Your task to perform on an android device: create a new album in the google photos Image 0: 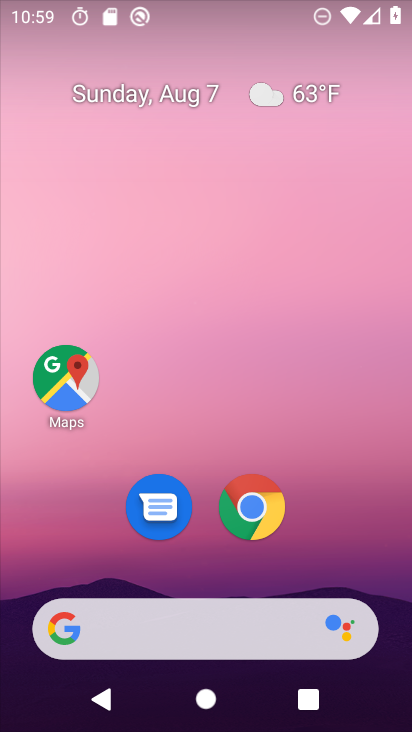
Step 0: drag from (318, 380) to (305, 34)
Your task to perform on an android device: create a new album in the google photos Image 1: 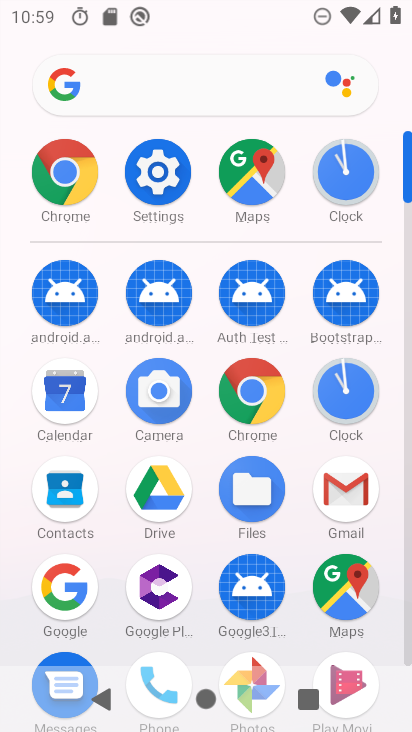
Step 1: drag from (292, 559) to (301, 229)
Your task to perform on an android device: create a new album in the google photos Image 2: 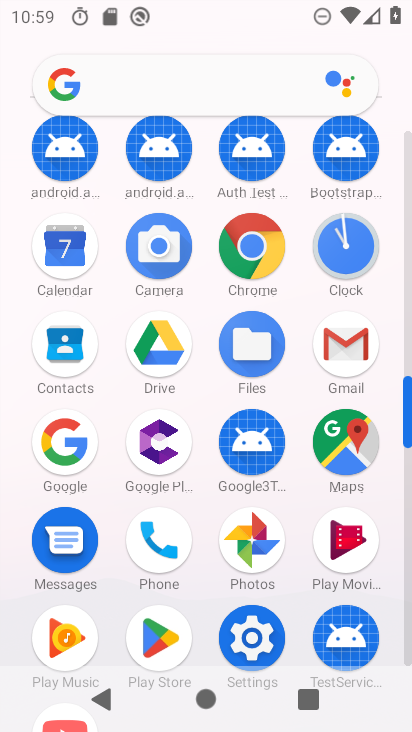
Step 2: click (258, 546)
Your task to perform on an android device: create a new album in the google photos Image 3: 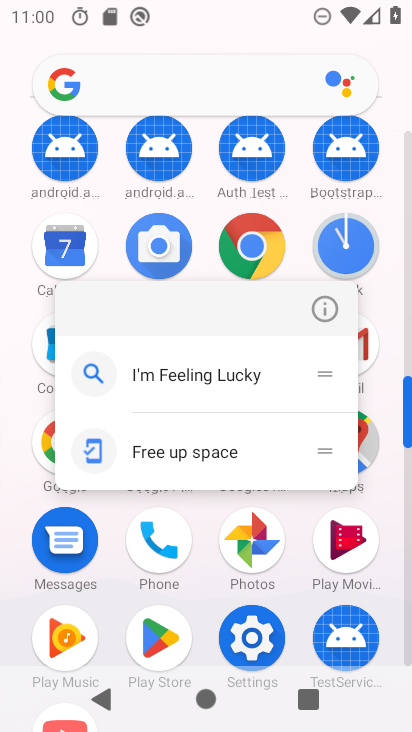
Step 3: click (253, 546)
Your task to perform on an android device: create a new album in the google photos Image 4: 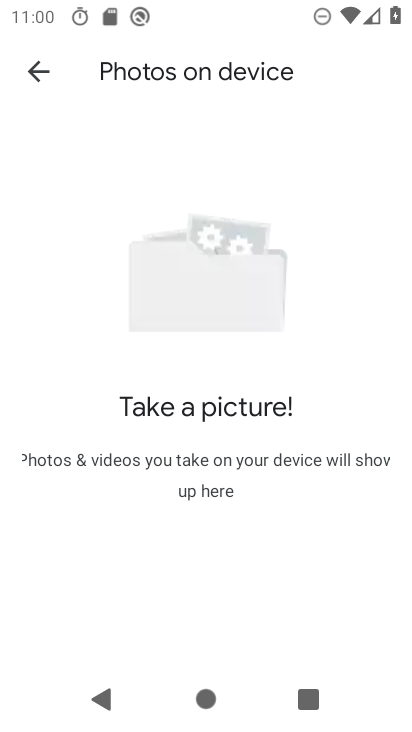
Step 4: click (25, 70)
Your task to perform on an android device: create a new album in the google photos Image 5: 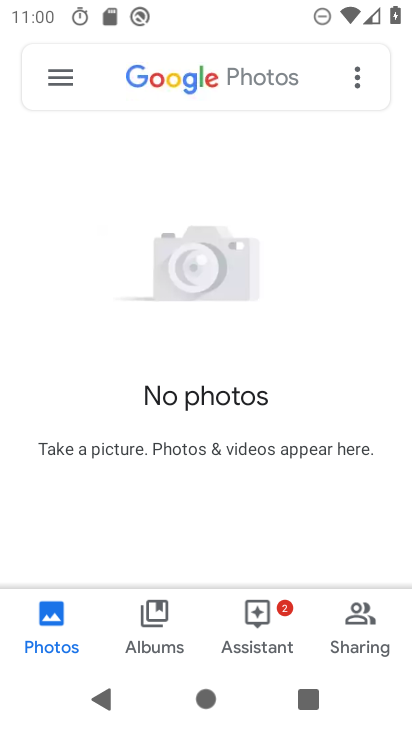
Step 5: click (174, 618)
Your task to perform on an android device: create a new album in the google photos Image 6: 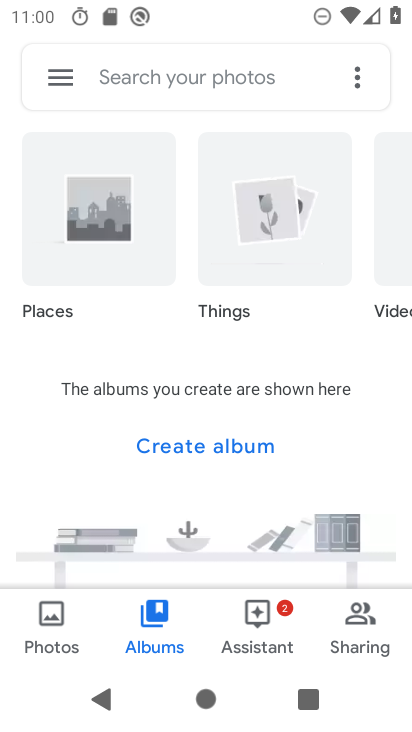
Step 6: click (234, 444)
Your task to perform on an android device: create a new album in the google photos Image 7: 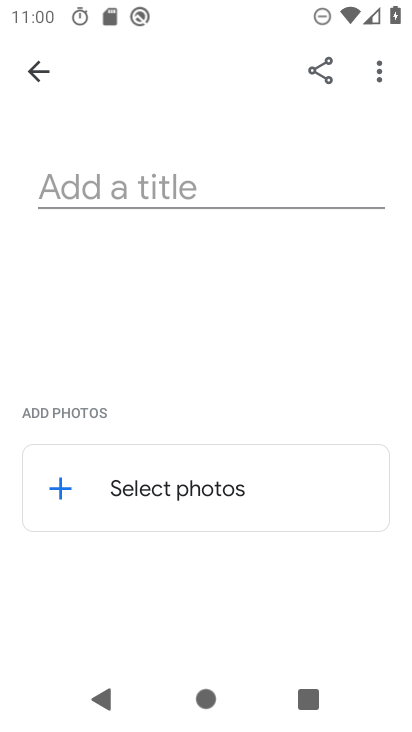
Step 7: click (294, 191)
Your task to perform on an android device: create a new album in the google photos Image 8: 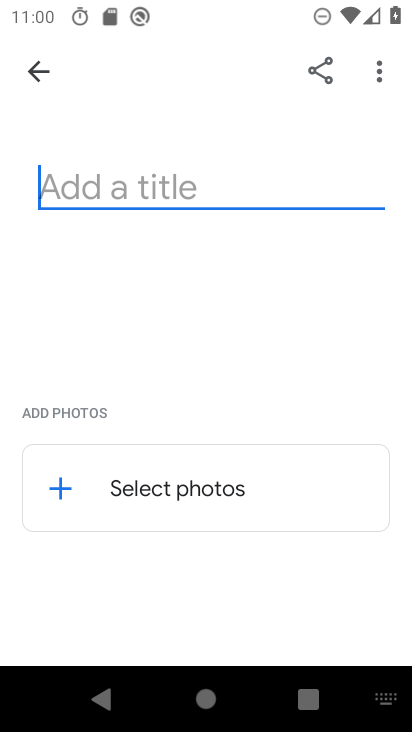
Step 8: type ""
Your task to perform on an android device: create a new album in the google photos Image 9: 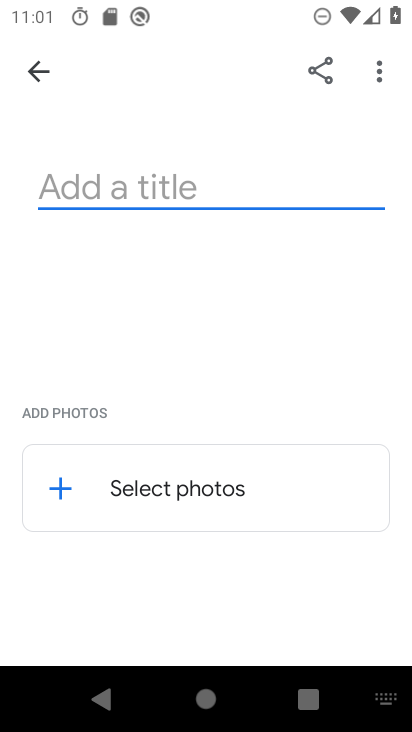
Step 9: type "wellwish"
Your task to perform on an android device: create a new album in the google photos Image 10: 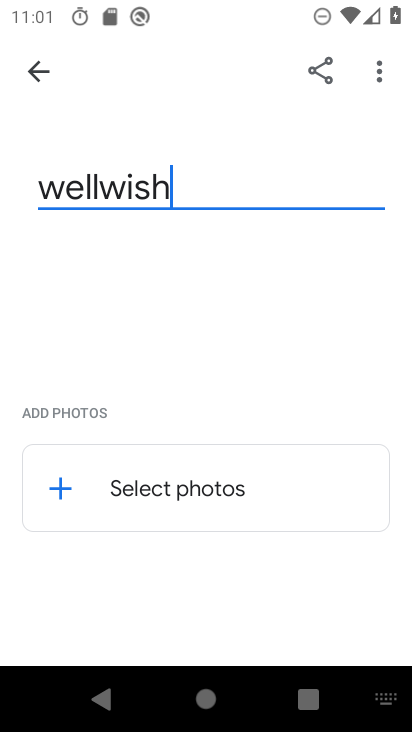
Step 10: press enter
Your task to perform on an android device: create a new album in the google photos Image 11: 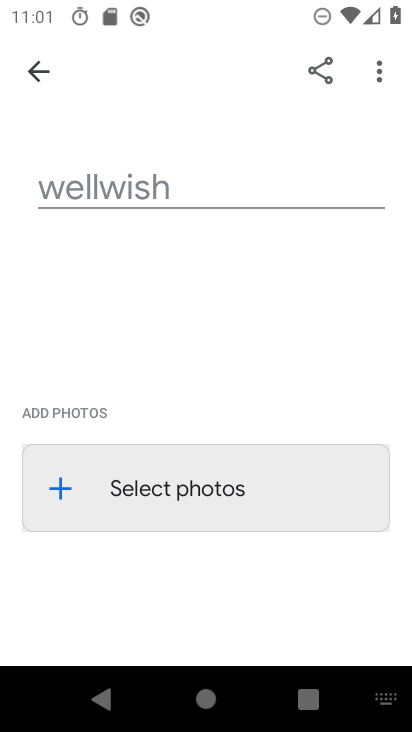
Step 11: click (40, 63)
Your task to perform on an android device: create a new album in the google photos Image 12: 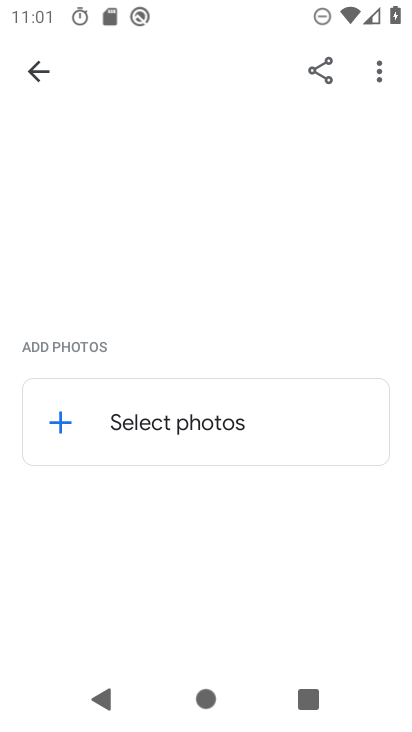
Step 12: task complete